Your task to perform on an android device: change notifications settings Image 0: 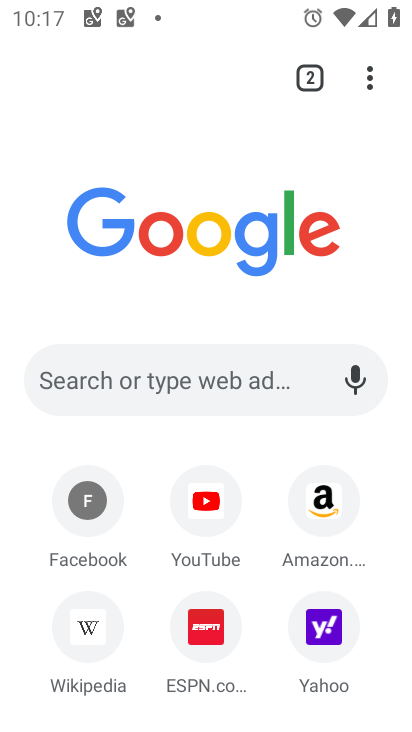
Step 0: press home button
Your task to perform on an android device: change notifications settings Image 1: 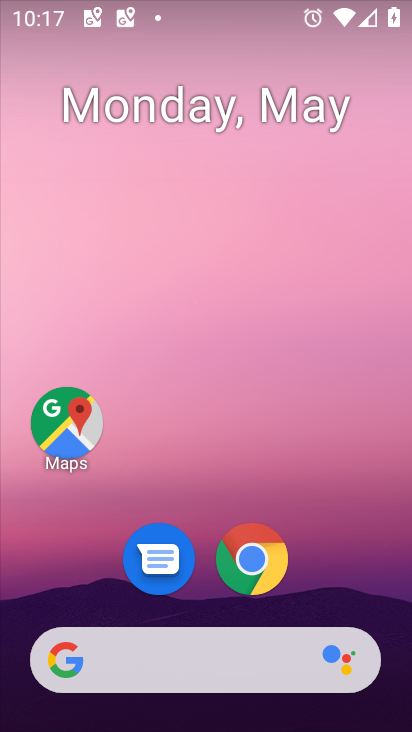
Step 1: drag from (401, 654) to (262, 108)
Your task to perform on an android device: change notifications settings Image 2: 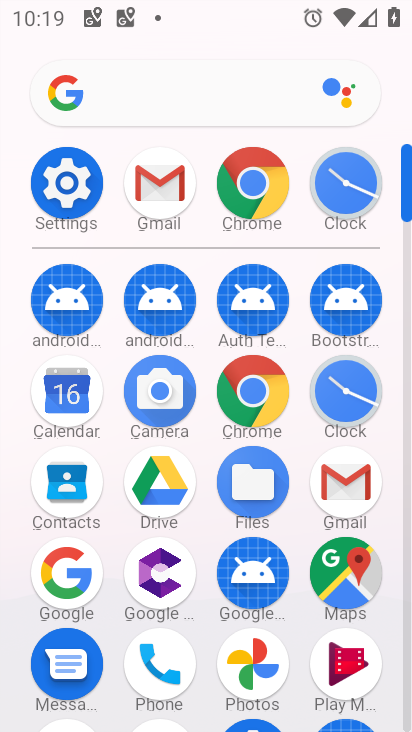
Step 2: click (76, 204)
Your task to perform on an android device: change notifications settings Image 3: 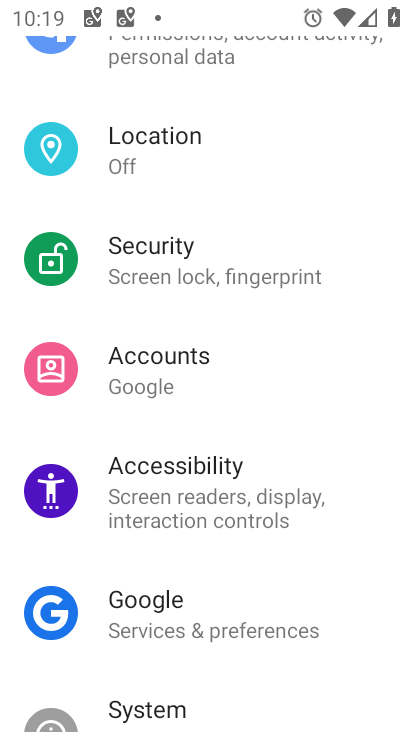
Step 3: drag from (185, 140) to (250, 608)
Your task to perform on an android device: change notifications settings Image 4: 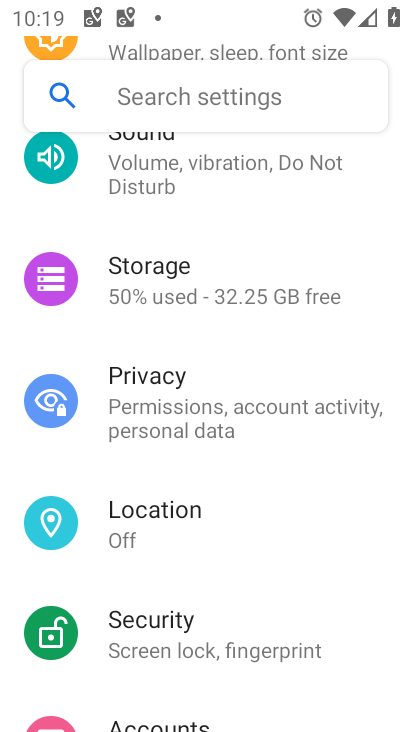
Step 4: drag from (199, 225) to (216, 597)
Your task to perform on an android device: change notifications settings Image 5: 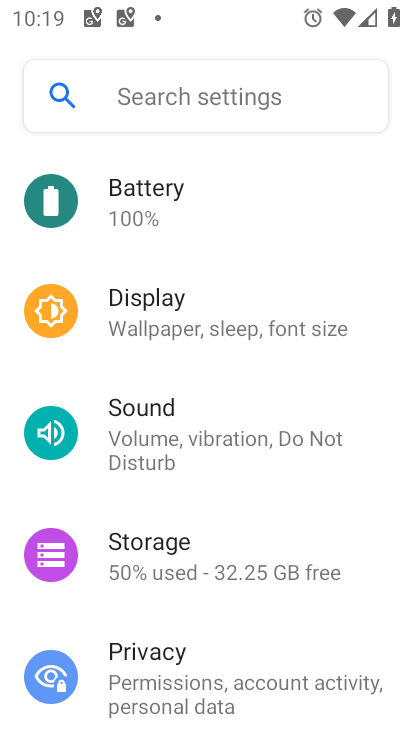
Step 5: drag from (218, 234) to (257, 615)
Your task to perform on an android device: change notifications settings Image 6: 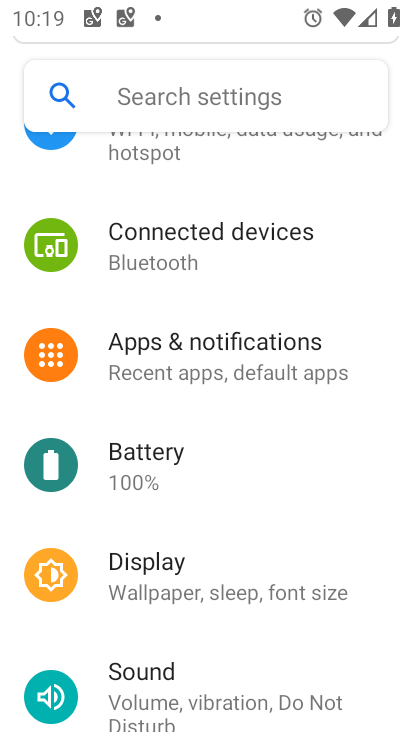
Step 6: click (258, 368)
Your task to perform on an android device: change notifications settings Image 7: 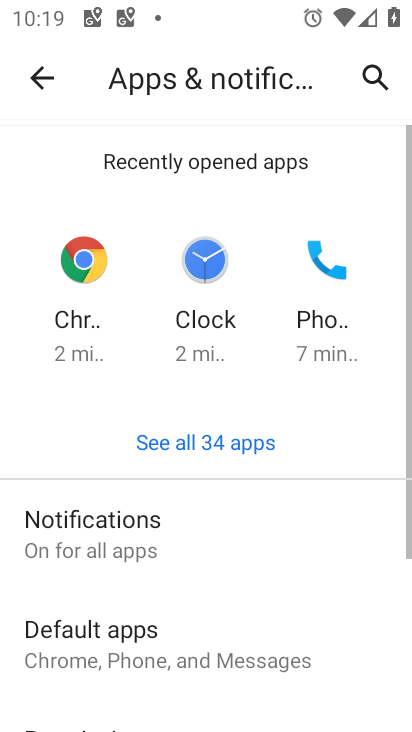
Step 7: click (86, 561)
Your task to perform on an android device: change notifications settings Image 8: 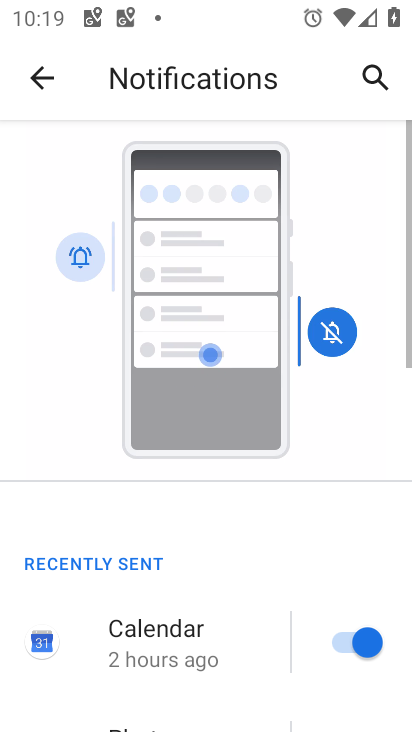
Step 8: task complete